Your task to perform on an android device: open device folders in google photos Image 0: 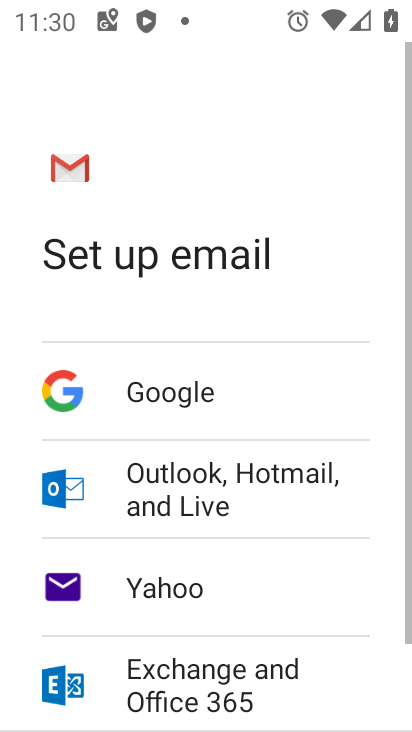
Step 0: press home button
Your task to perform on an android device: open device folders in google photos Image 1: 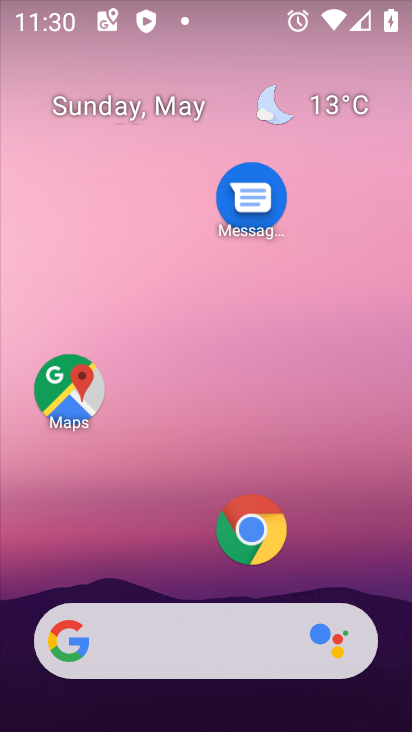
Step 1: drag from (159, 552) to (258, 2)
Your task to perform on an android device: open device folders in google photos Image 2: 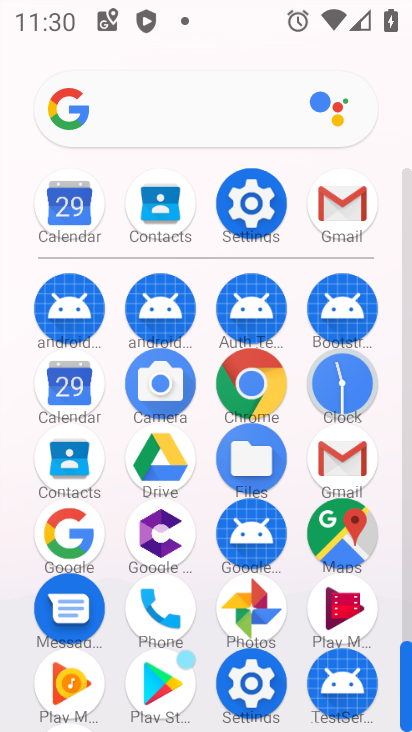
Step 2: click (245, 595)
Your task to perform on an android device: open device folders in google photos Image 3: 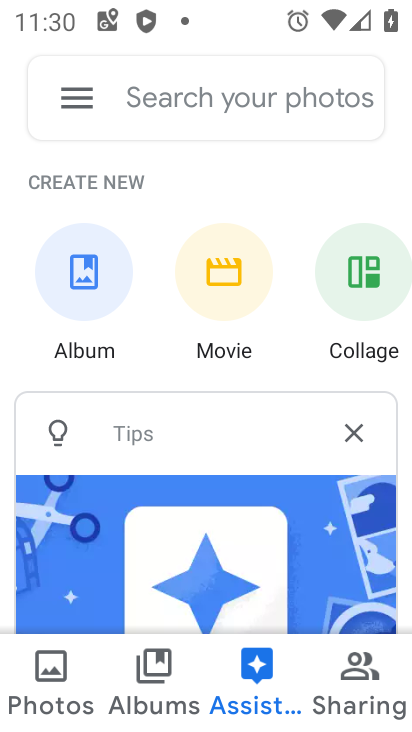
Step 3: click (65, 90)
Your task to perform on an android device: open device folders in google photos Image 4: 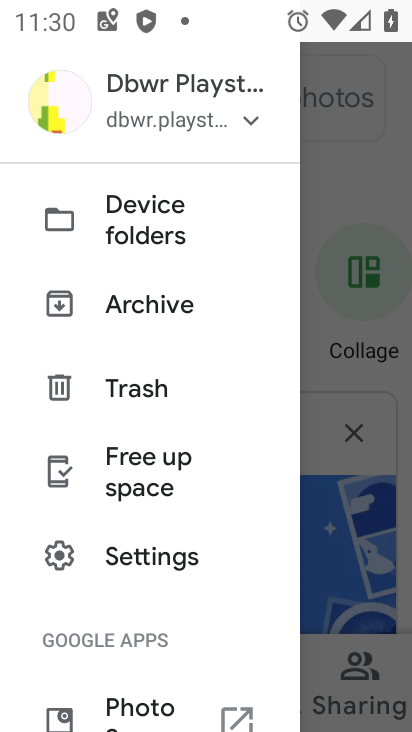
Step 4: click (127, 219)
Your task to perform on an android device: open device folders in google photos Image 5: 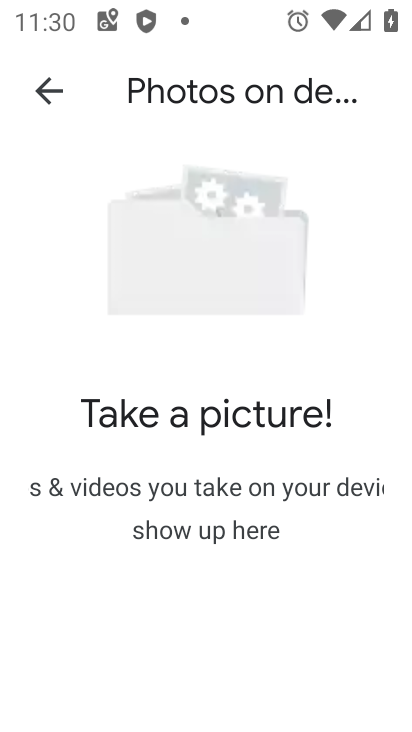
Step 5: task complete